Your task to perform on an android device: show emergency info Image 0: 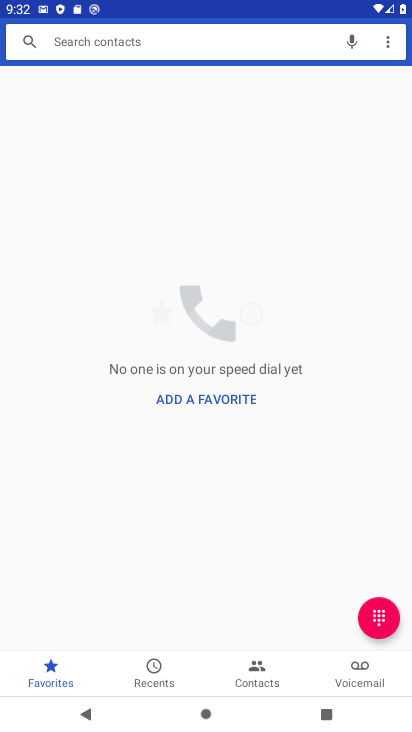
Step 0: press home button
Your task to perform on an android device: show emergency info Image 1: 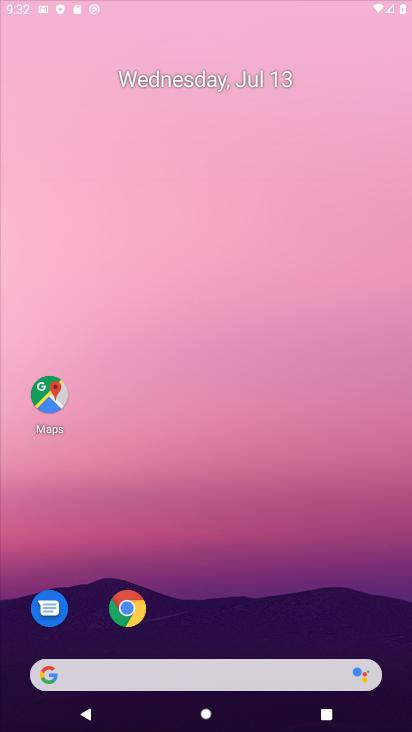
Step 1: drag from (180, 316) to (278, 196)
Your task to perform on an android device: show emergency info Image 2: 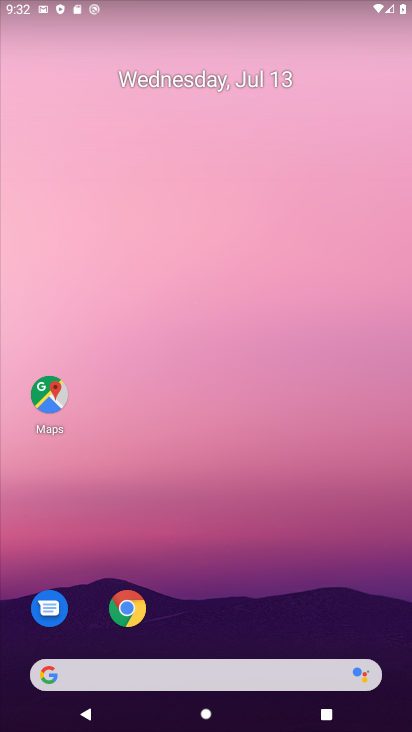
Step 2: drag from (43, 563) to (230, 112)
Your task to perform on an android device: show emergency info Image 3: 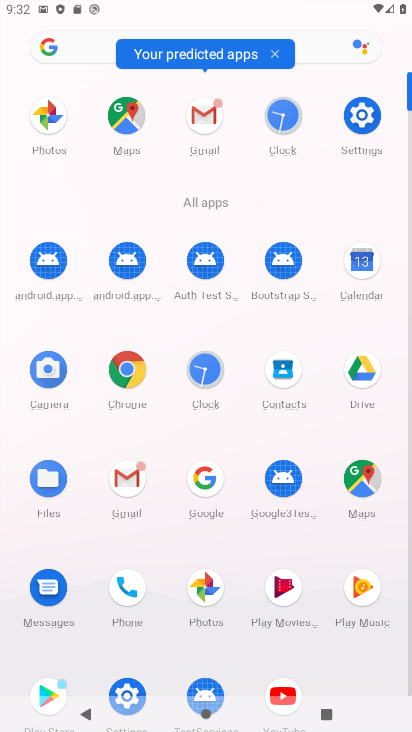
Step 3: click (373, 118)
Your task to perform on an android device: show emergency info Image 4: 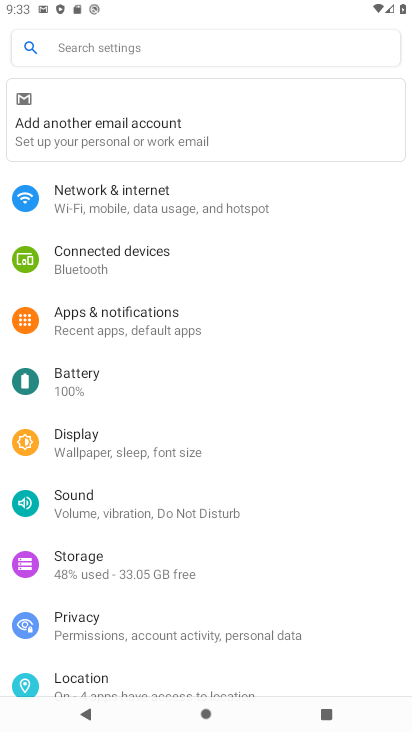
Step 4: drag from (151, 659) to (238, 268)
Your task to perform on an android device: show emergency info Image 5: 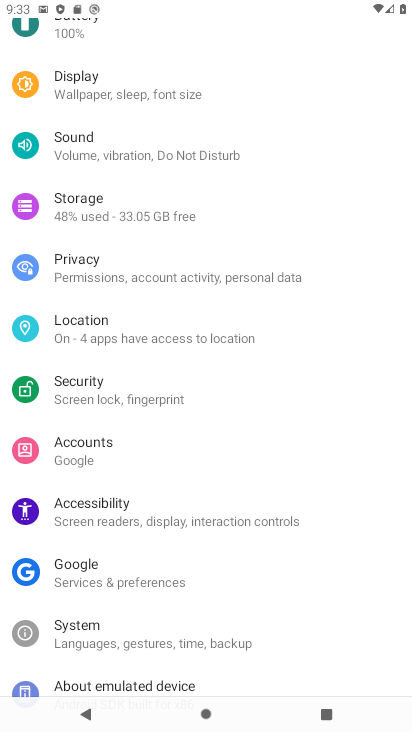
Step 5: drag from (180, 343) to (334, 197)
Your task to perform on an android device: show emergency info Image 6: 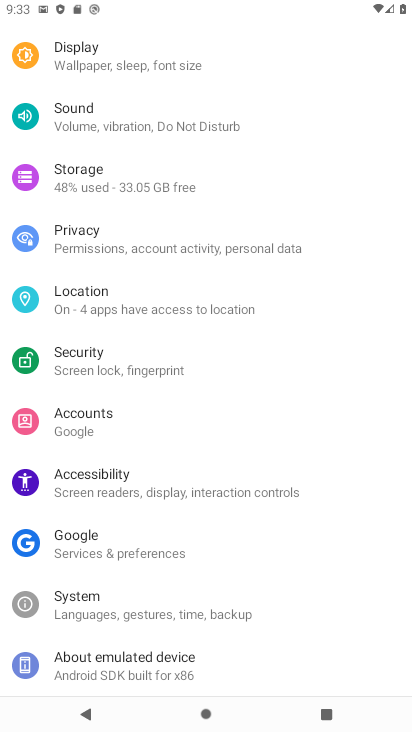
Step 6: click (187, 652)
Your task to perform on an android device: show emergency info Image 7: 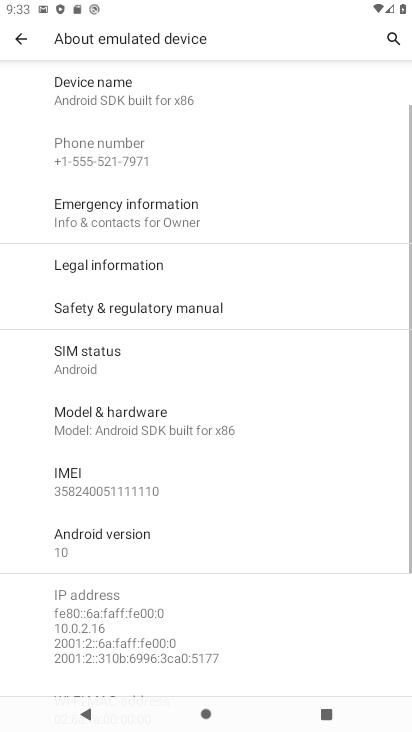
Step 7: click (148, 220)
Your task to perform on an android device: show emergency info Image 8: 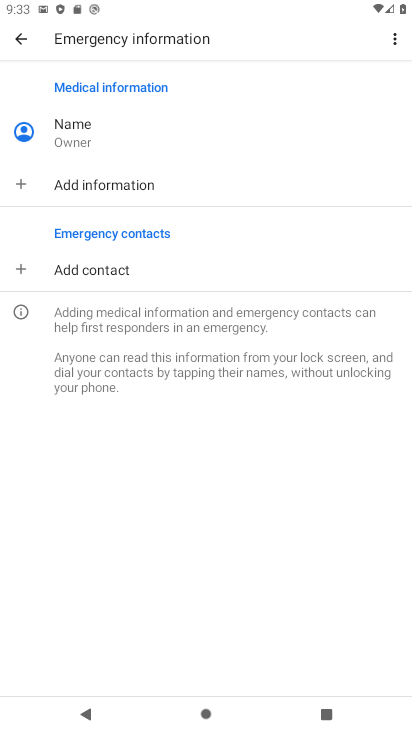
Step 8: task complete